Your task to perform on an android device: turn off priority inbox in the gmail app Image 0: 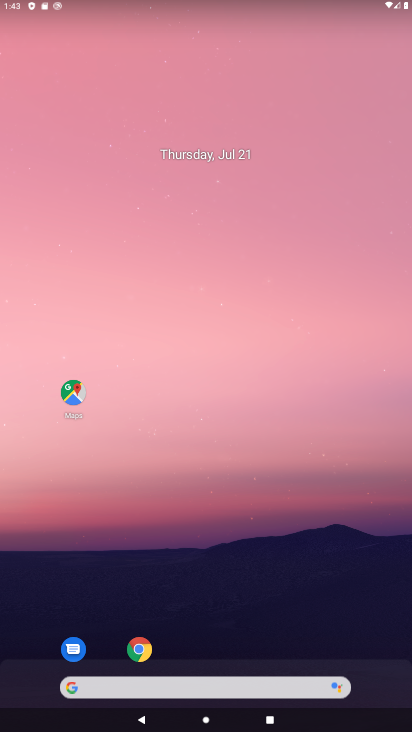
Step 0: drag from (288, 532) to (311, 103)
Your task to perform on an android device: turn off priority inbox in the gmail app Image 1: 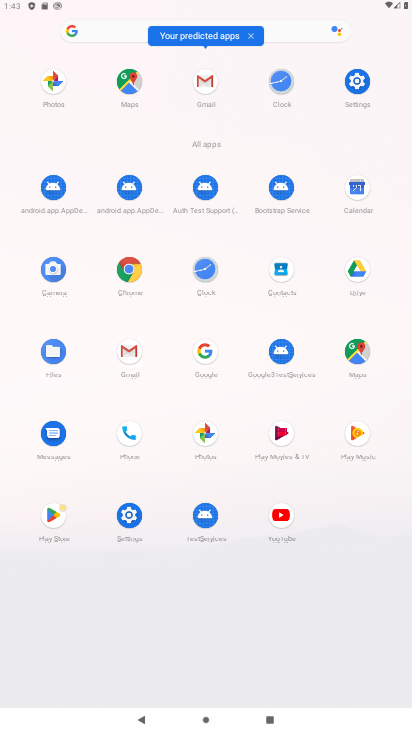
Step 1: click (202, 84)
Your task to perform on an android device: turn off priority inbox in the gmail app Image 2: 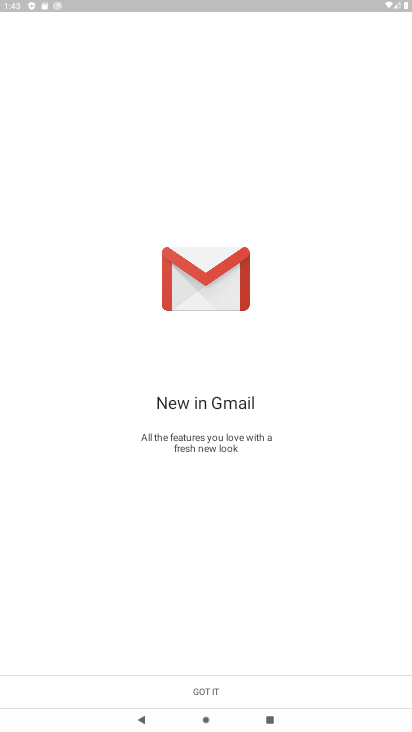
Step 2: click (209, 691)
Your task to perform on an android device: turn off priority inbox in the gmail app Image 3: 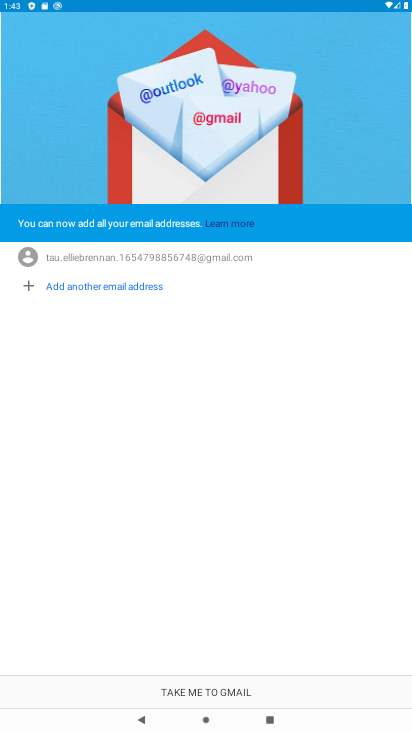
Step 3: click (211, 691)
Your task to perform on an android device: turn off priority inbox in the gmail app Image 4: 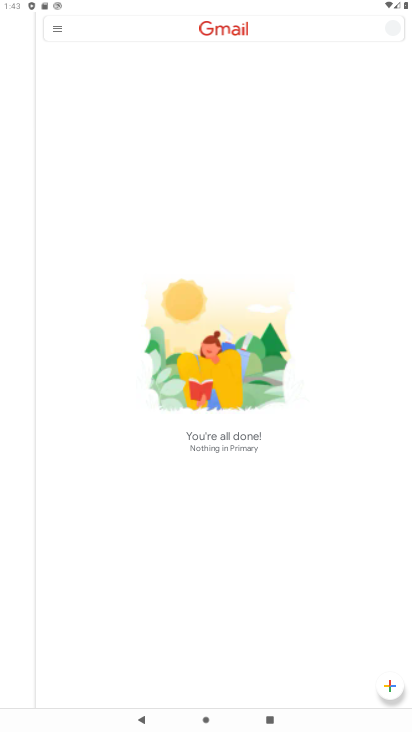
Step 4: click (60, 38)
Your task to perform on an android device: turn off priority inbox in the gmail app Image 5: 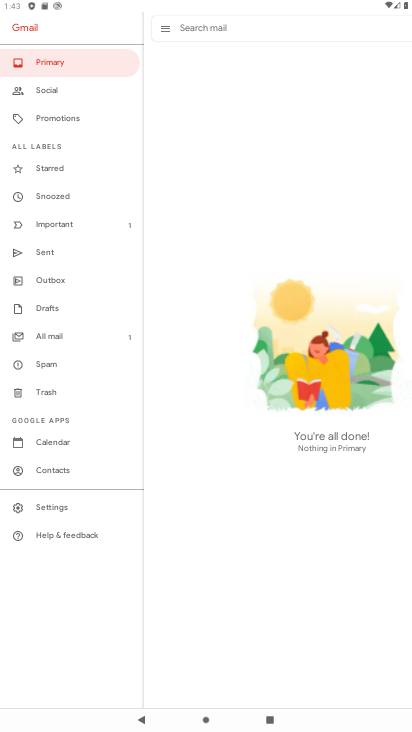
Step 5: click (43, 509)
Your task to perform on an android device: turn off priority inbox in the gmail app Image 6: 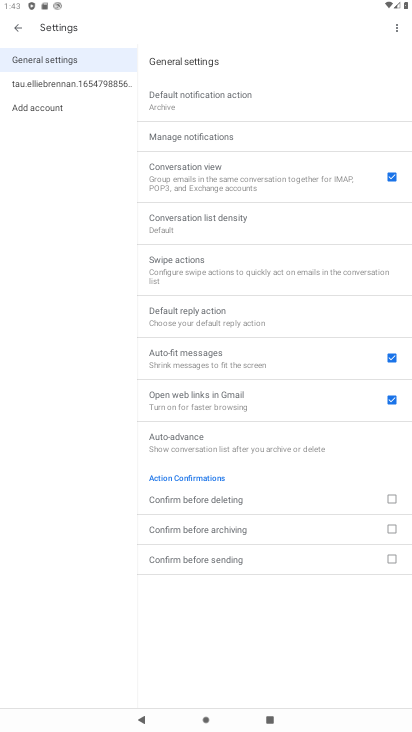
Step 6: click (25, 76)
Your task to perform on an android device: turn off priority inbox in the gmail app Image 7: 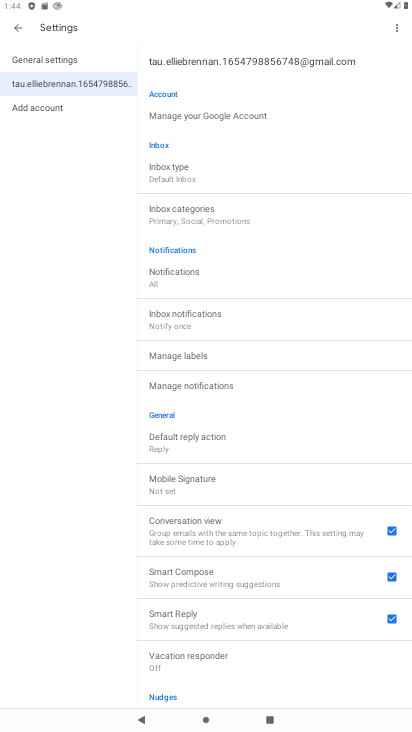
Step 7: click (182, 172)
Your task to perform on an android device: turn off priority inbox in the gmail app Image 8: 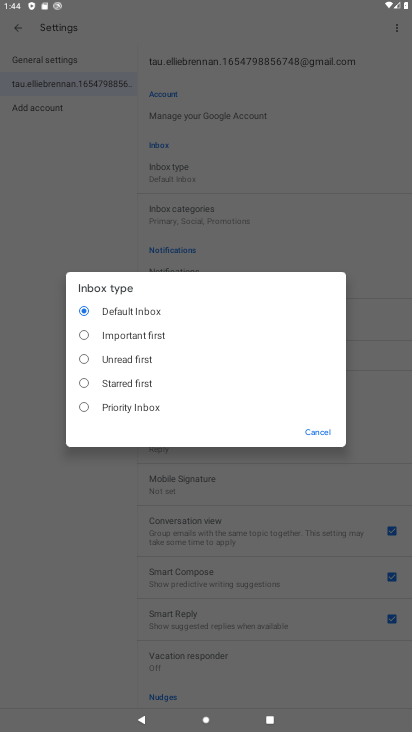
Step 8: task complete